Your task to perform on an android device: refresh tabs in the chrome app Image 0: 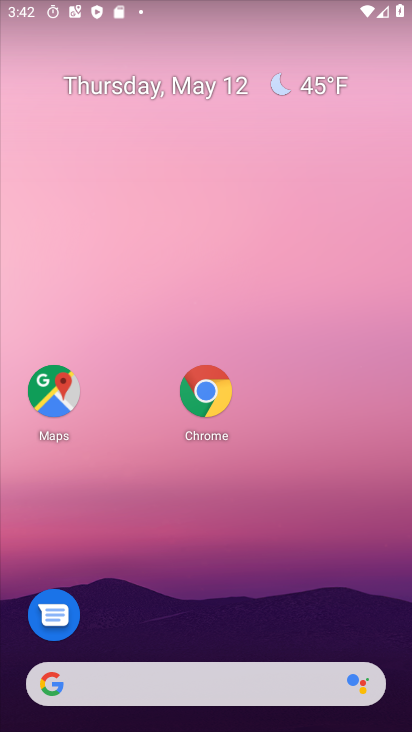
Step 0: click (208, 387)
Your task to perform on an android device: refresh tabs in the chrome app Image 1: 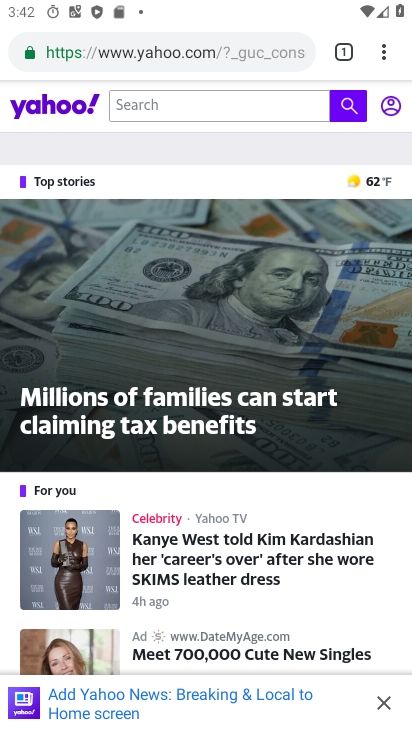
Step 1: click (380, 49)
Your task to perform on an android device: refresh tabs in the chrome app Image 2: 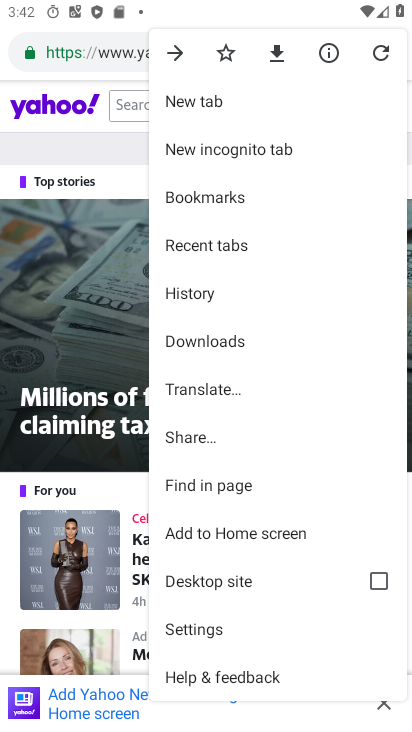
Step 2: click (381, 58)
Your task to perform on an android device: refresh tabs in the chrome app Image 3: 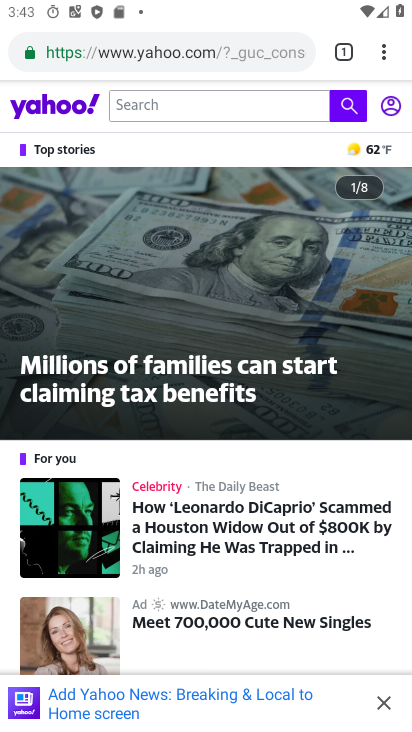
Step 3: task complete